Your task to perform on an android device: turn on location history Image 0: 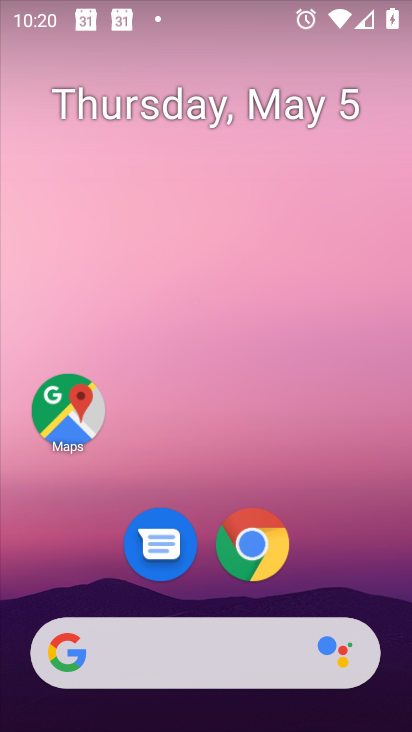
Step 0: drag from (326, 357) to (365, 109)
Your task to perform on an android device: turn on location history Image 1: 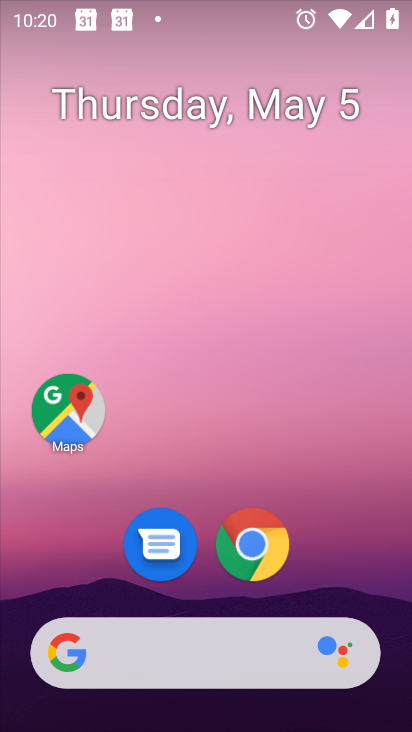
Step 1: drag from (350, 554) to (404, 255)
Your task to perform on an android device: turn on location history Image 2: 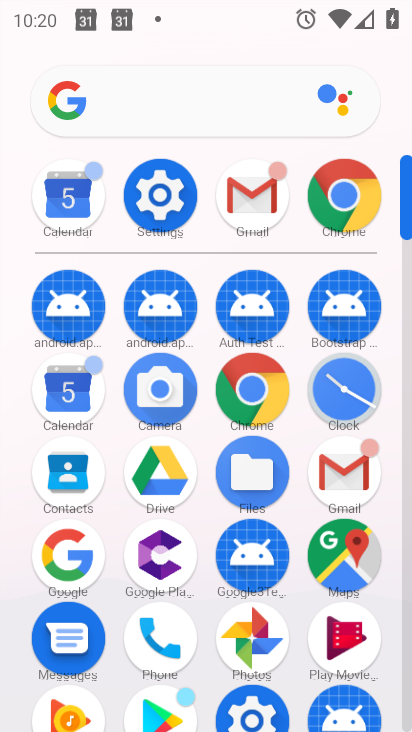
Step 2: click (170, 193)
Your task to perform on an android device: turn on location history Image 3: 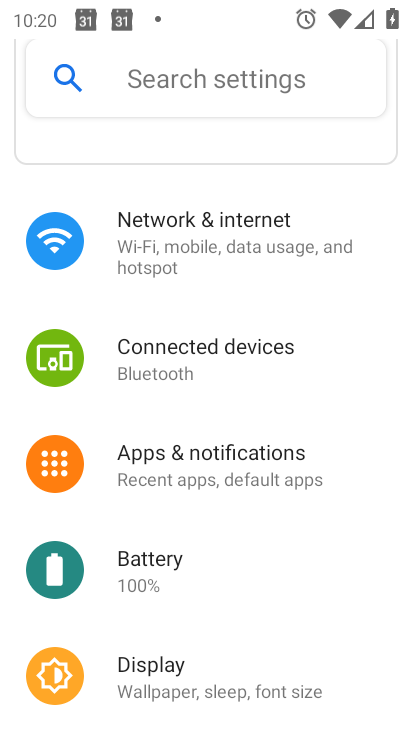
Step 3: drag from (230, 565) to (238, 250)
Your task to perform on an android device: turn on location history Image 4: 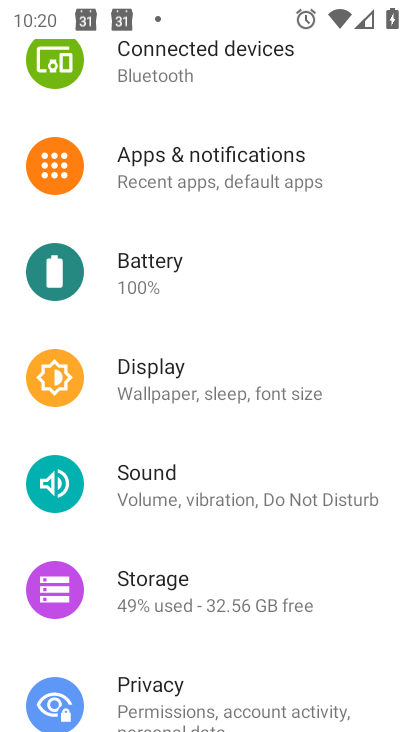
Step 4: drag from (224, 606) to (266, 296)
Your task to perform on an android device: turn on location history Image 5: 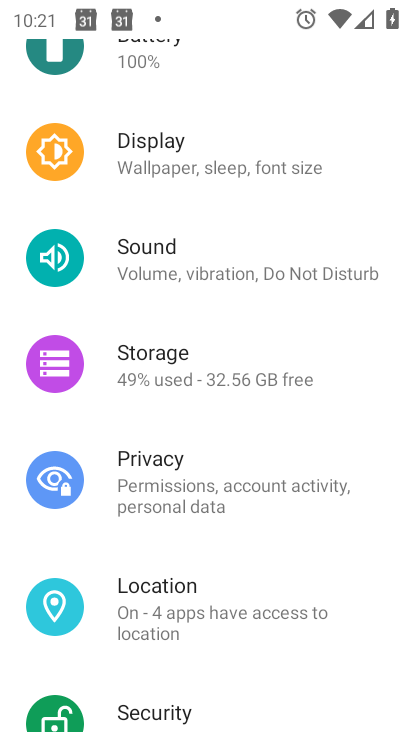
Step 5: click (224, 613)
Your task to perform on an android device: turn on location history Image 6: 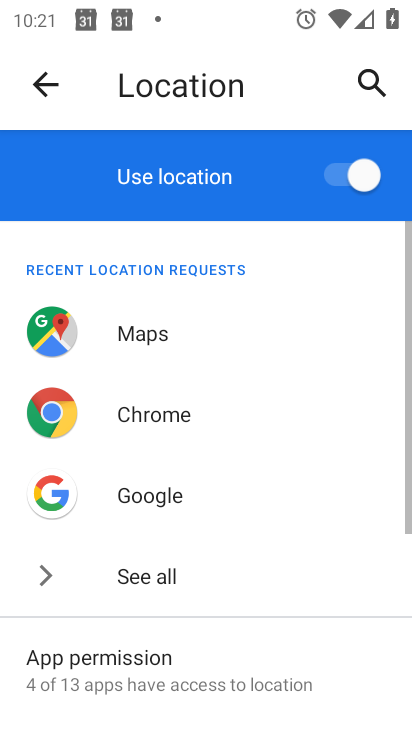
Step 6: drag from (201, 632) to (246, 311)
Your task to perform on an android device: turn on location history Image 7: 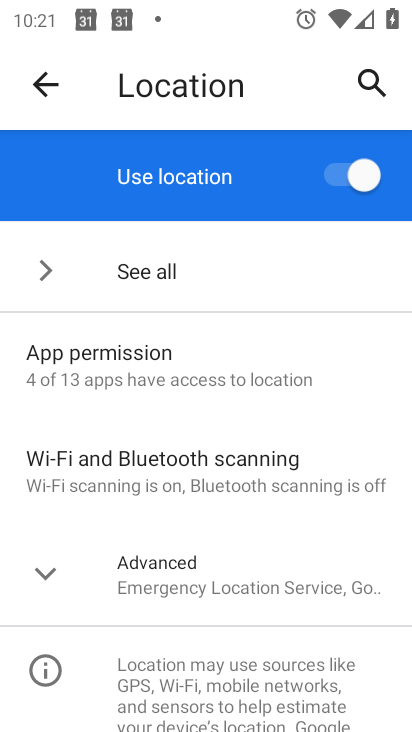
Step 7: click (175, 566)
Your task to perform on an android device: turn on location history Image 8: 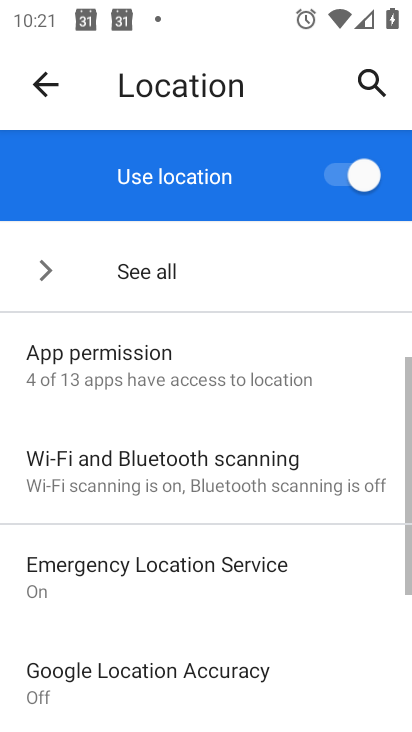
Step 8: drag from (195, 556) to (235, 320)
Your task to perform on an android device: turn on location history Image 9: 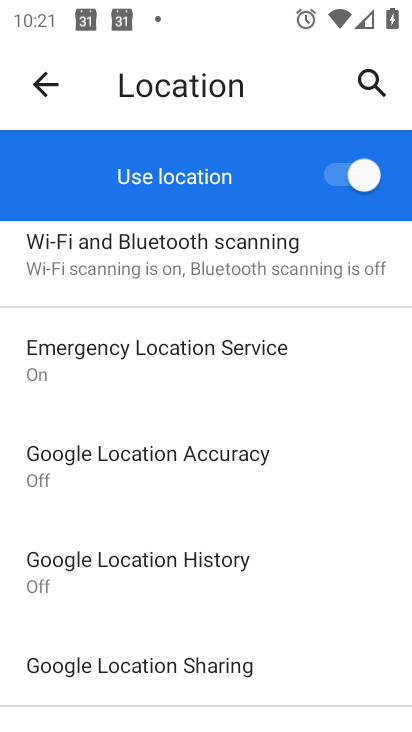
Step 9: click (252, 558)
Your task to perform on an android device: turn on location history Image 10: 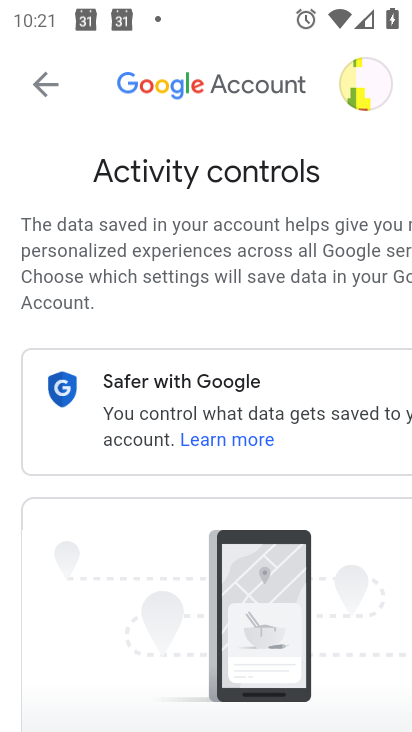
Step 10: task complete